Your task to perform on an android device: Open maps Image 0: 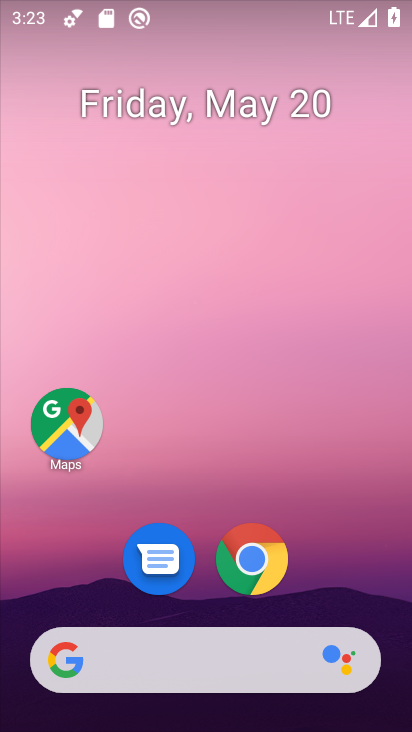
Step 0: click (68, 420)
Your task to perform on an android device: Open maps Image 1: 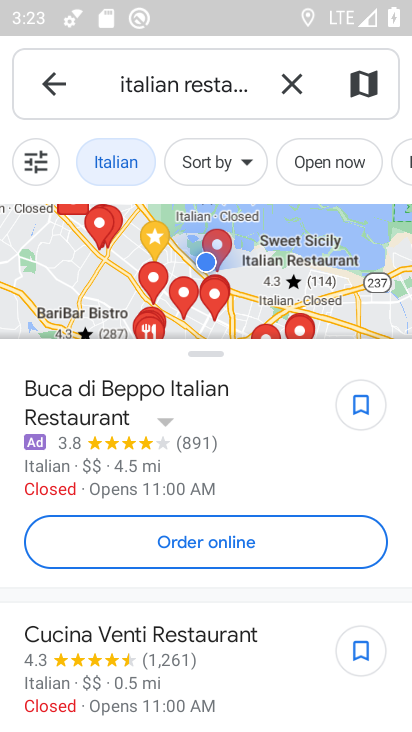
Step 1: click (290, 85)
Your task to perform on an android device: Open maps Image 2: 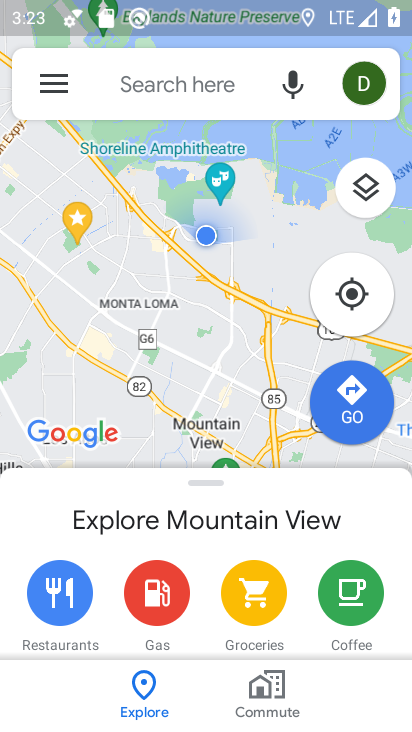
Step 2: task complete